Your task to perform on an android device: change the clock display to show seconds Image 0: 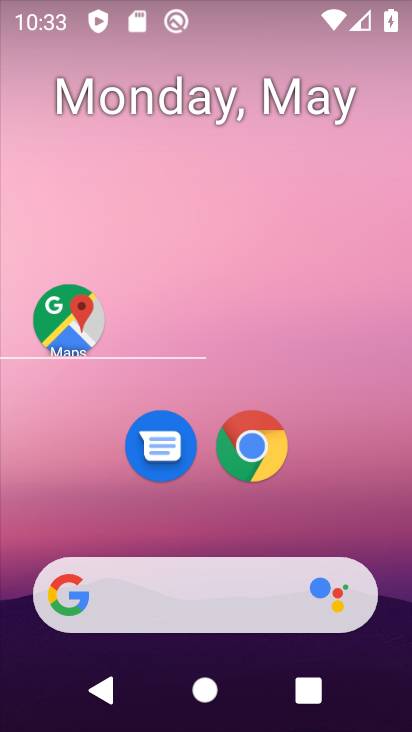
Step 0: drag from (168, 247) to (144, 155)
Your task to perform on an android device: change the clock display to show seconds Image 1: 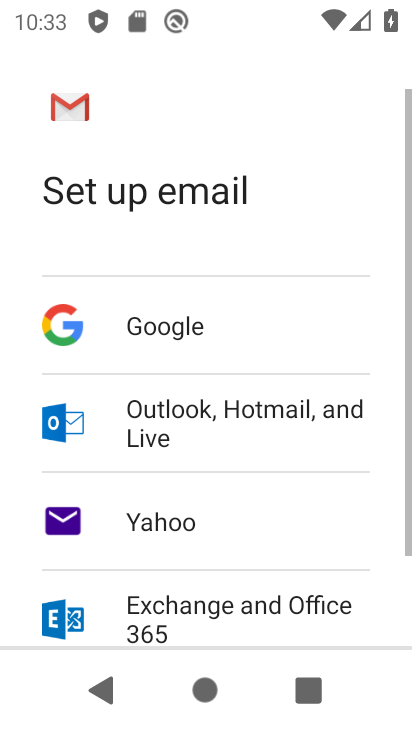
Step 1: press home button
Your task to perform on an android device: change the clock display to show seconds Image 2: 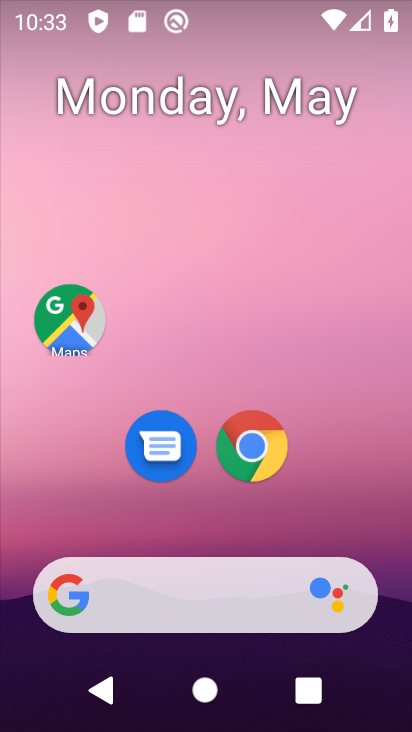
Step 2: drag from (185, 570) to (167, 162)
Your task to perform on an android device: change the clock display to show seconds Image 3: 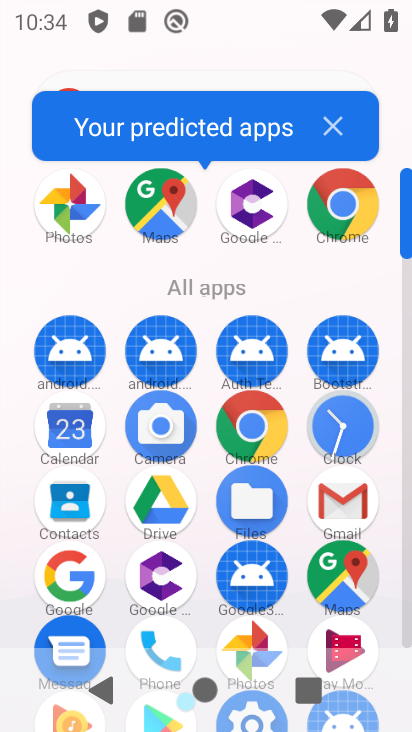
Step 3: click (356, 416)
Your task to perform on an android device: change the clock display to show seconds Image 4: 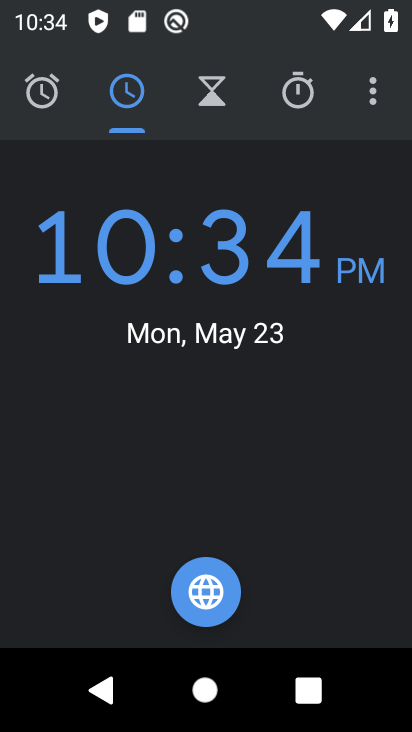
Step 4: click (367, 99)
Your task to perform on an android device: change the clock display to show seconds Image 5: 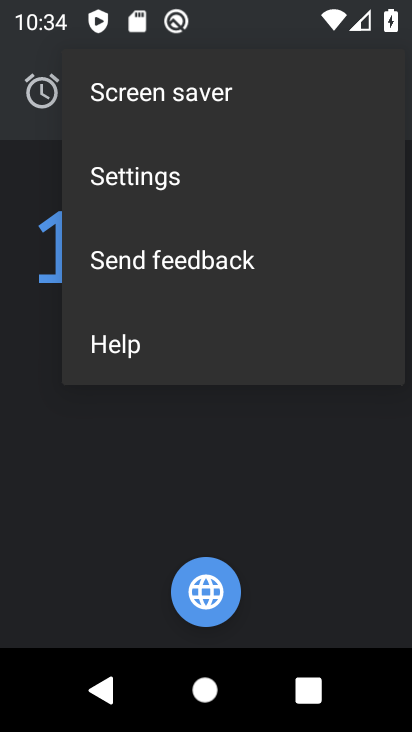
Step 5: click (167, 185)
Your task to perform on an android device: change the clock display to show seconds Image 6: 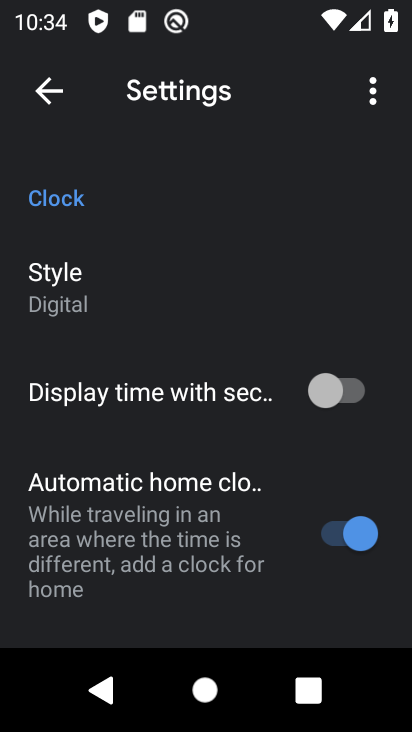
Step 6: click (347, 384)
Your task to perform on an android device: change the clock display to show seconds Image 7: 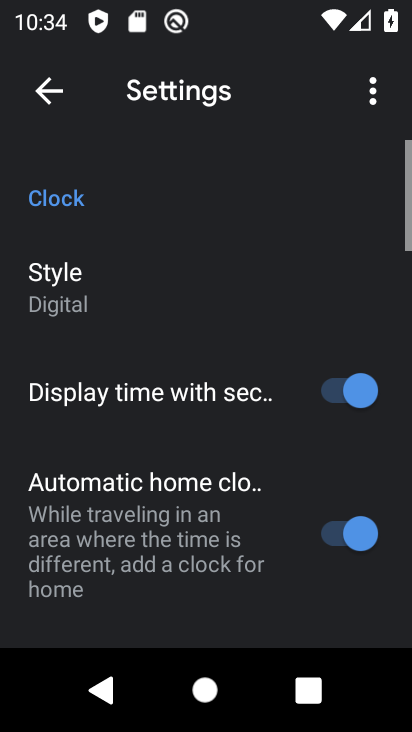
Step 7: task complete